Your task to perform on an android device: toggle show notifications on the lock screen Image 0: 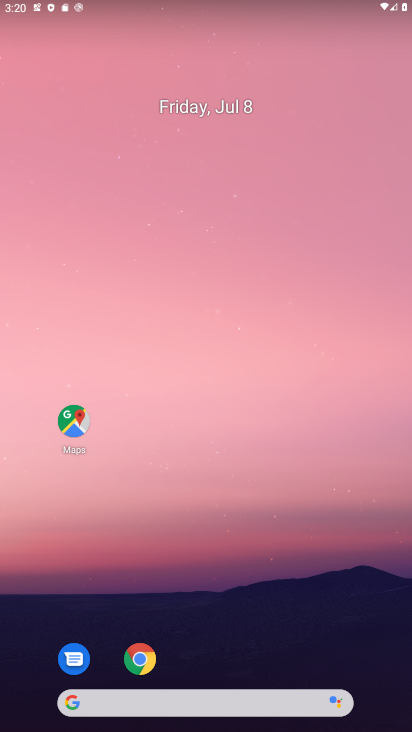
Step 0: drag from (202, 654) to (214, 235)
Your task to perform on an android device: toggle show notifications on the lock screen Image 1: 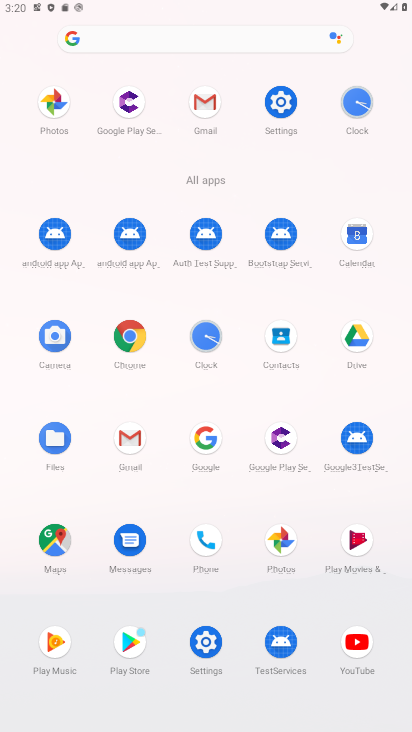
Step 1: click (266, 100)
Your task to perform on an android device: toggle show notifications on the lock screen Image 2: 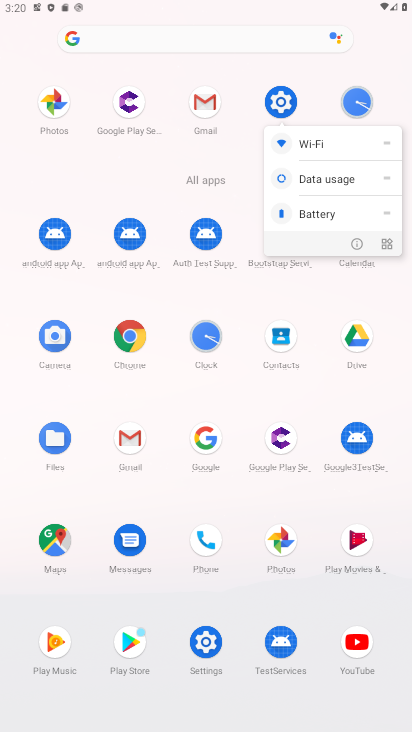
Step 2: click (286, 110)
Your task to perform on an android device: toggle show notifications on the lock screen Image 3: 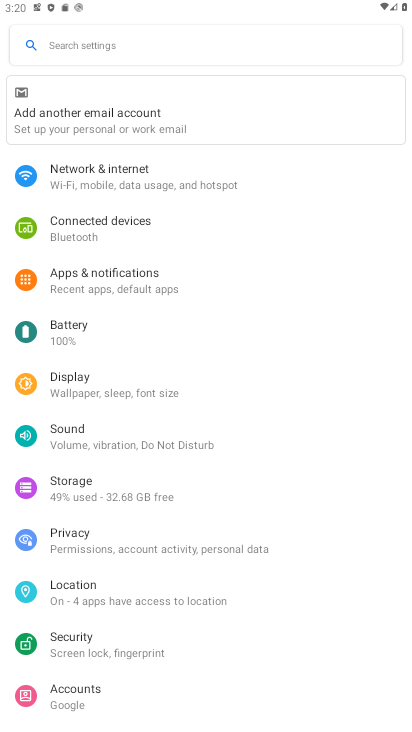
Step 3: click (149, 290)
Your task to perform on an android device: toggle show notifications on the lock screen Image 4: 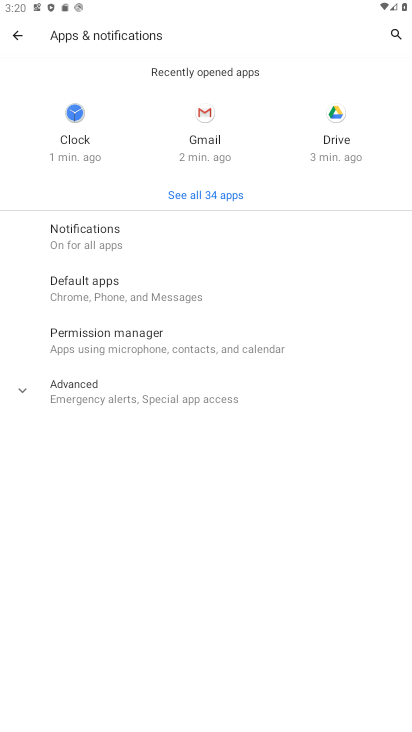
Step 4: click (128, 241)
Your task to perform on an android device: toggle show notifications on the lock screen Image 5: 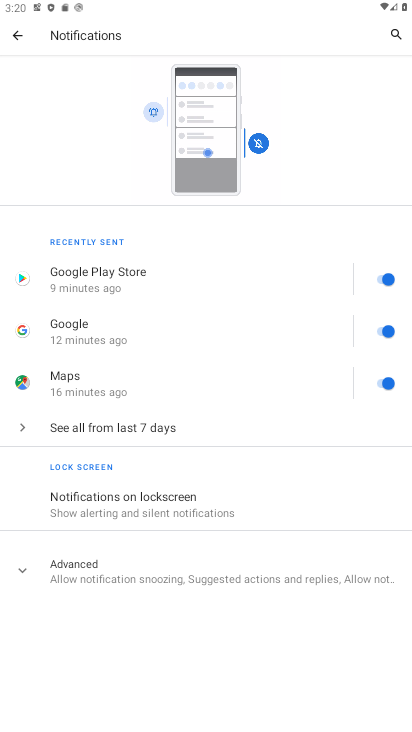
Step 5: click (193, 502)
Your task to perform on an android device: toggle show notifications on the lock screen Image 6: 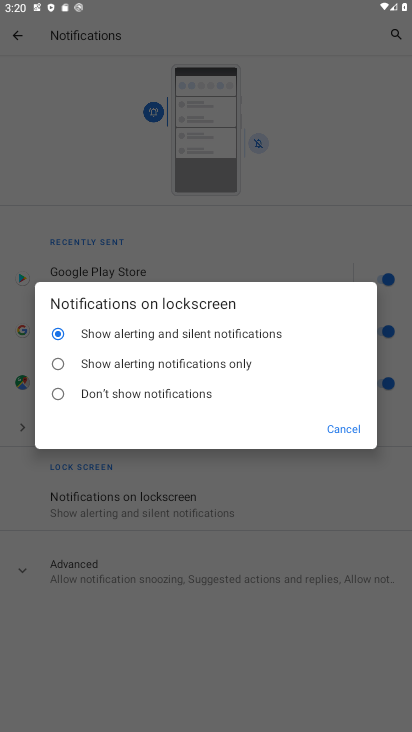
Step 6: click (181, 395)
Your task to perform on an android device: toggle show notifications on the lock screen Image 7: 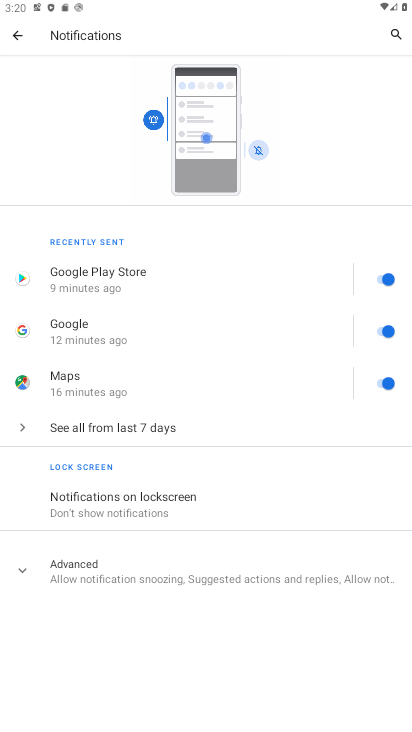
Step 7: task complete